Your task to perform on an android device: turn off location history Image 0: 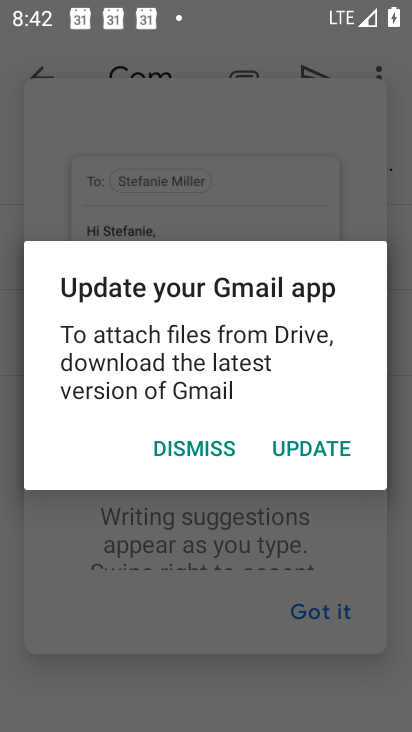
Step 0: press home button
Your task to perform on an android device: turn off location history Image 1: 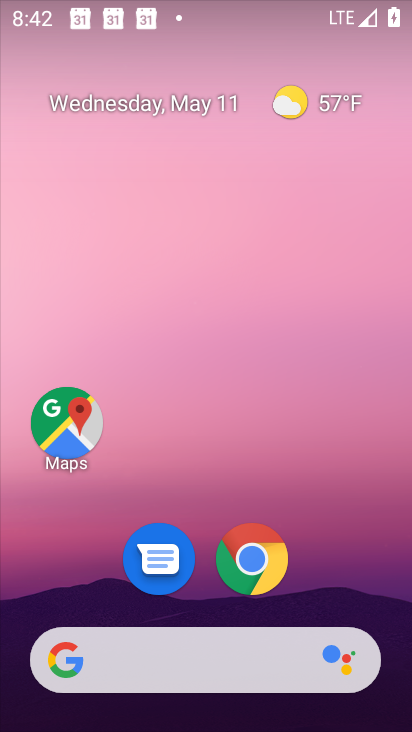
Step 1: click (79, 425)
Your task to perform on an android device: turn off location history Image 2: 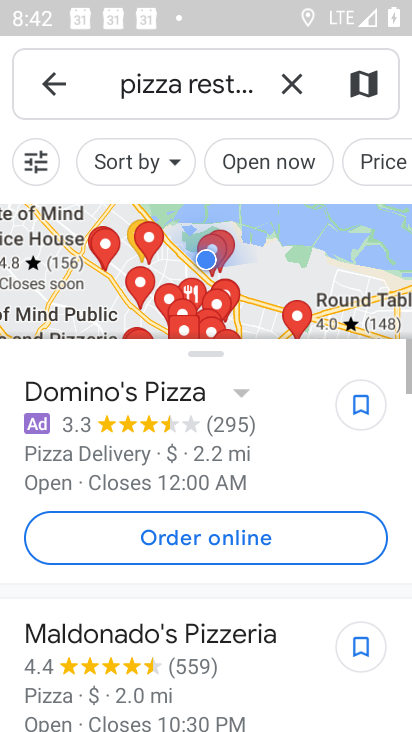
Step 2: click (52, 86)
Your task to perform on an android device: turn off location history Image 3: 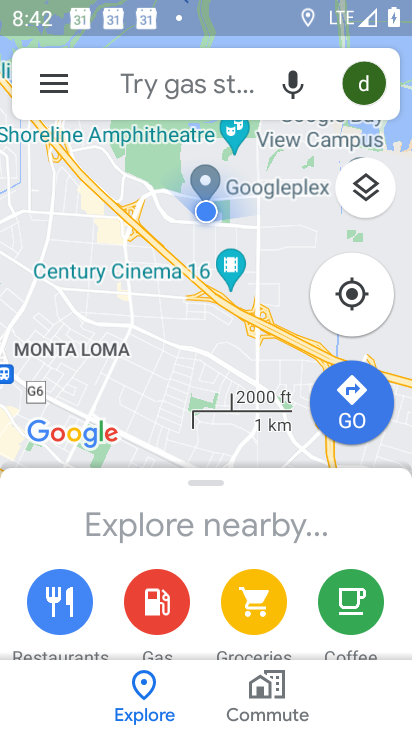
Step 3: click (52, 86)
Your task to perform on an android device: turn off location history Image 4: 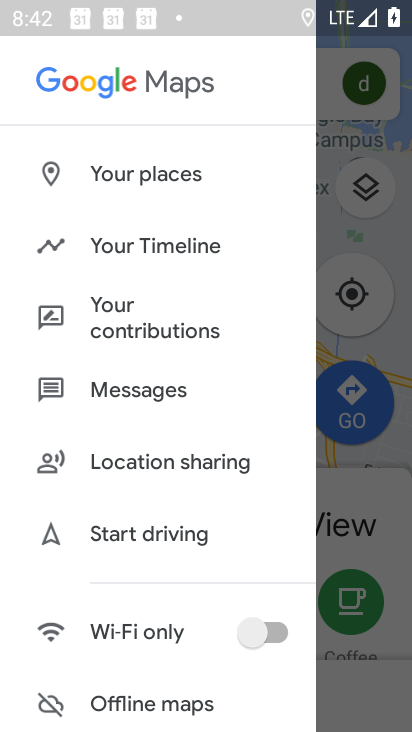
Step 4: click (146, 239)
Your task to perform on an android device: turn off location history Image 5: 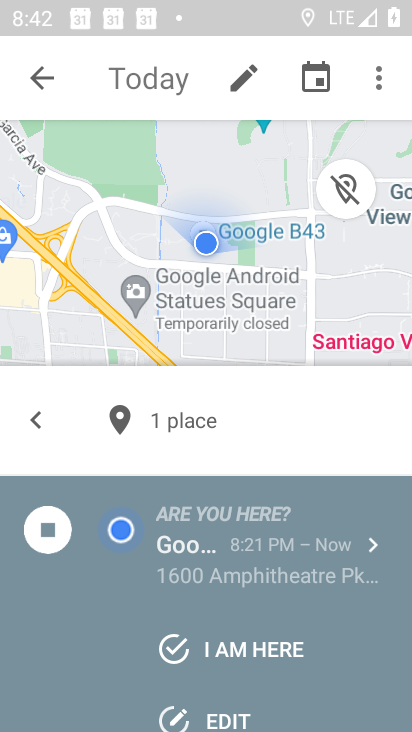
Step 5: click (384, 80)
Your task to perform on an android device: turn off location history Image 6: 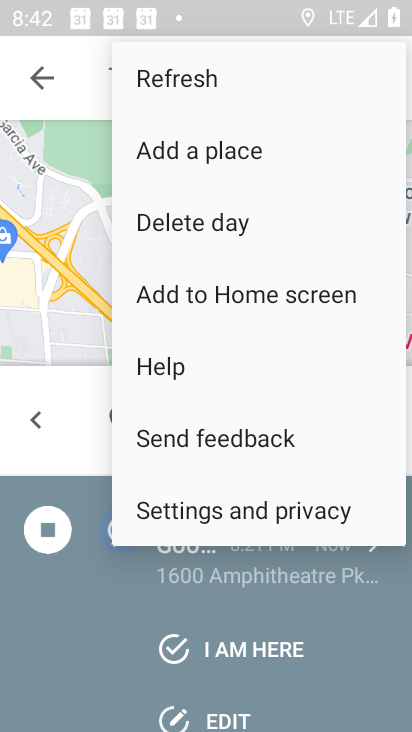
Step 6: click (224, 506)
Your task to perform on an android device: turn off location history Image 7: 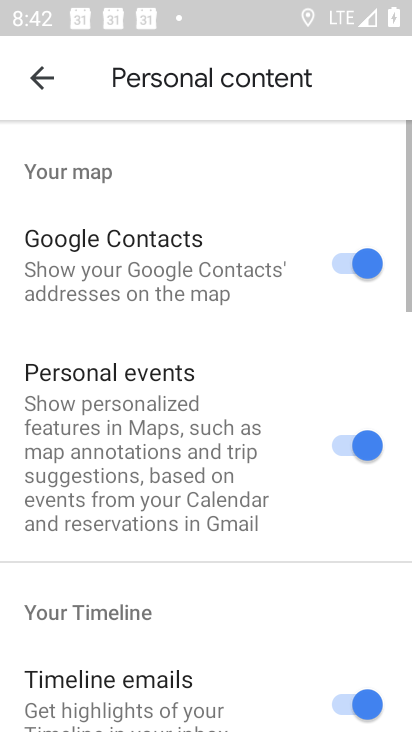
Step 7: drag from (224, 589) to (227, 207)
Your task to perform on an android device: turn off location history Image 8: 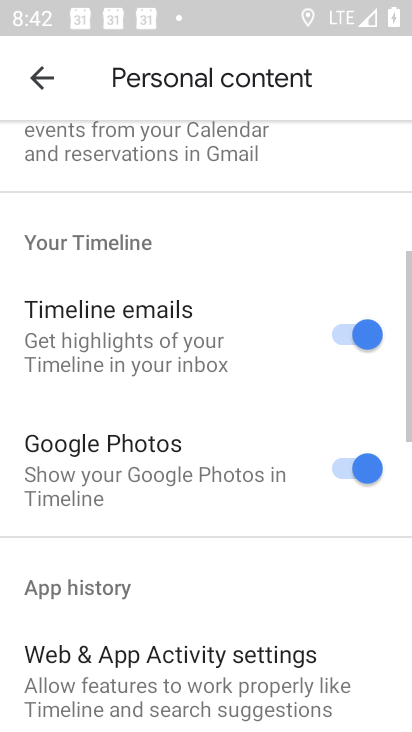
Step 8: drag from (229, 517) to (231, 307)
Your task to perform on an android device: turn off location history Image 9: 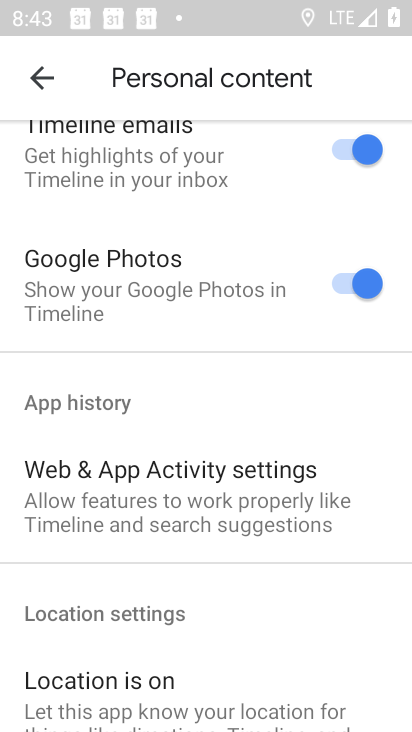
Step 9: drag from (210, 615) to (266, 373)
Your task to perform on an android device: turn off location history Image 10: 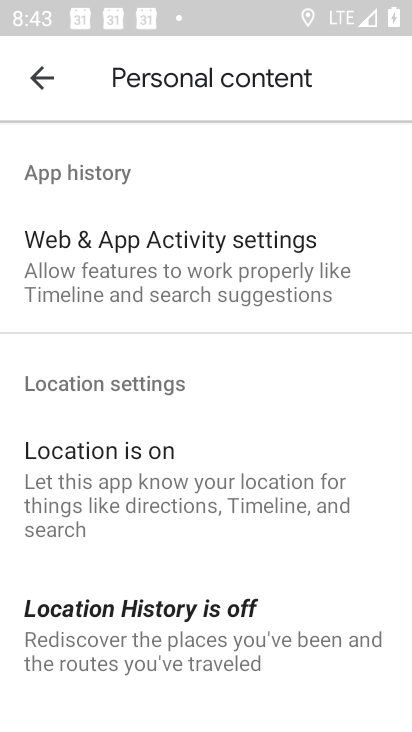
Step 10: click (176, 626)
Your task to perform on an android device: turn off location history Image 11: 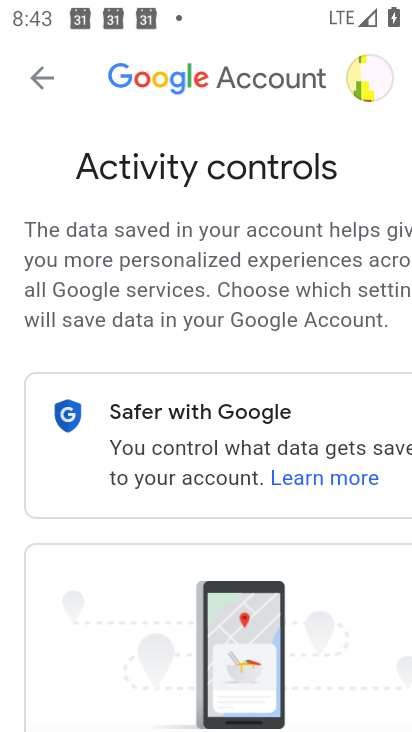
Step 11: drag from (256, 506) to (232, 225)
Your task to perform on an android device: turn off location history Image 12: 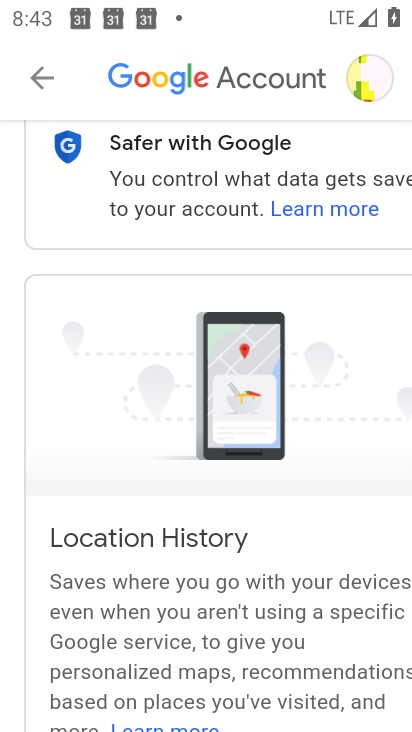
Step 12: drag from (245, 541) to (159, 211)
Your task to perform on an android device: turn off location history Image 13: 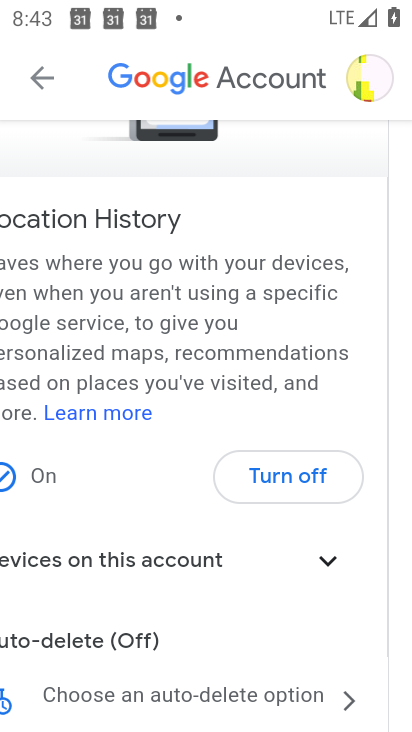
Step 13: click (266, 482)
Your task to perform on an android device: turn off location history Image 14: 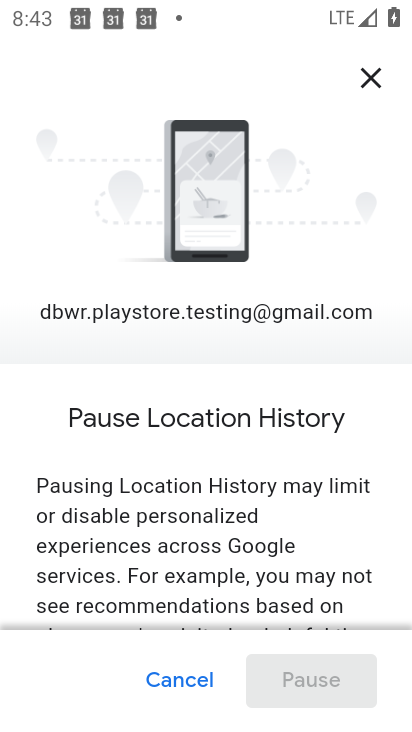
Step 14: drag from (273, 549) to (248, 59)
Your task to perform on an android device: turn off location history Image 15: 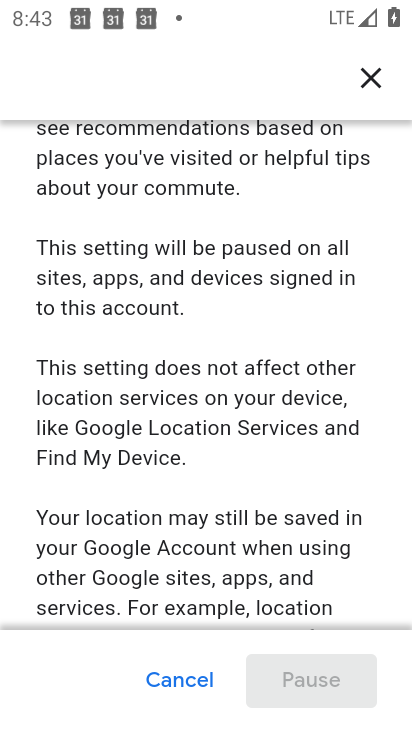
Step 15: drag from (283, 484) to (259, 76)
Your task to perform on an android device: turn off location history Image 16: 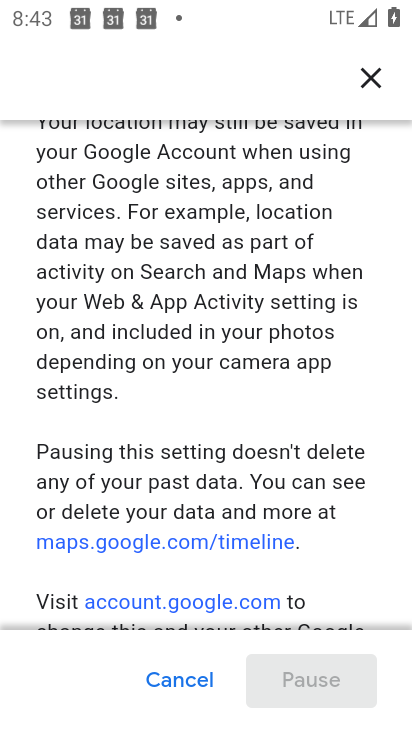
Step 16: drag from (305, 462) to (276, 11)
Your task to perform on an android device: turn off location history Image 17: 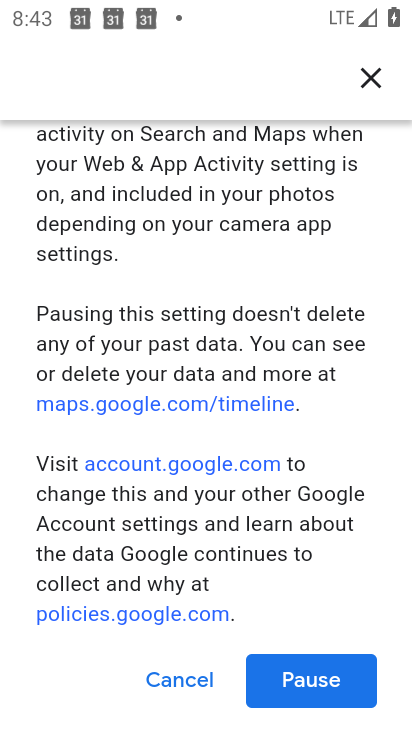
Step 17: click (324, 670)
Your task to perform on an android device: turn off location history Image 18: 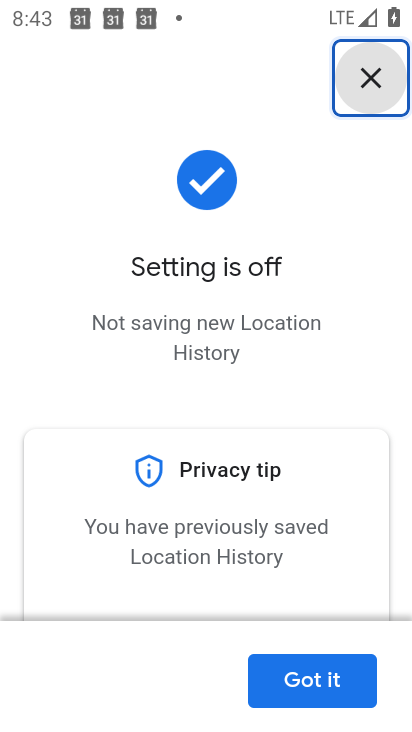
Step 18: click (322, 677)
Your task to perform on an android device: turn off location history Image 19: 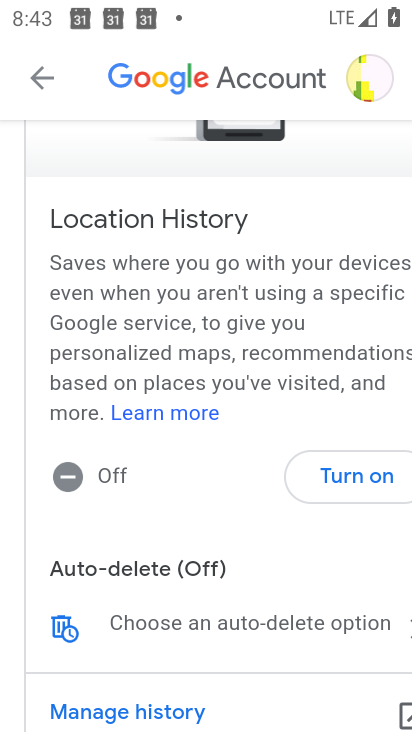
Step 19: task complete